Your task to perform on an android device: Is it going to rain this weekend? Image 0: 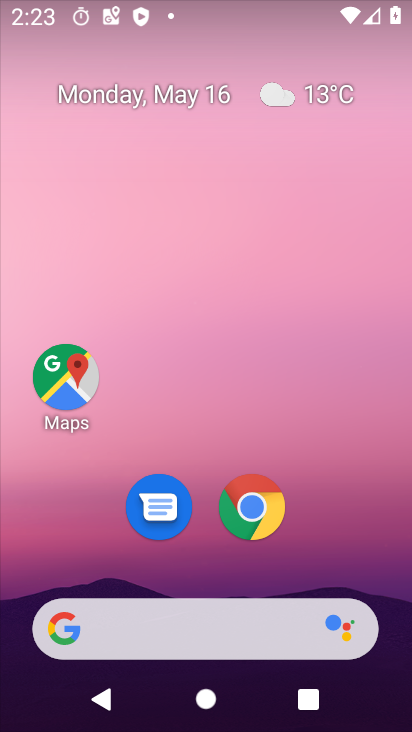
Step 0: click (225, 634)
Your task to perform on an android device: Is it going to rain this weekend? Image 1: 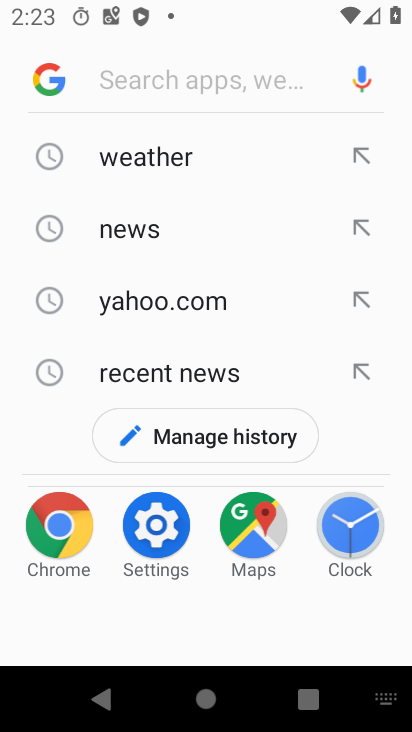
Step 1: click (175, 164)
Your task to perform on an android device: Is it going to rain this weekend? Image 2: 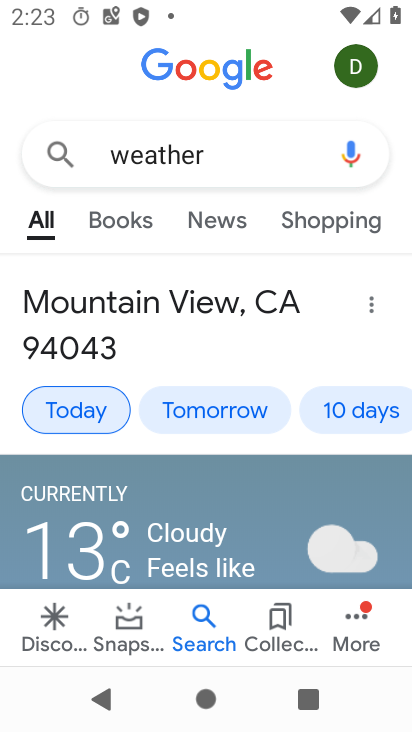
Step 2: click (337, 405)
Your task to perform on an android device: Is it going to rain this weekend? Image 3: 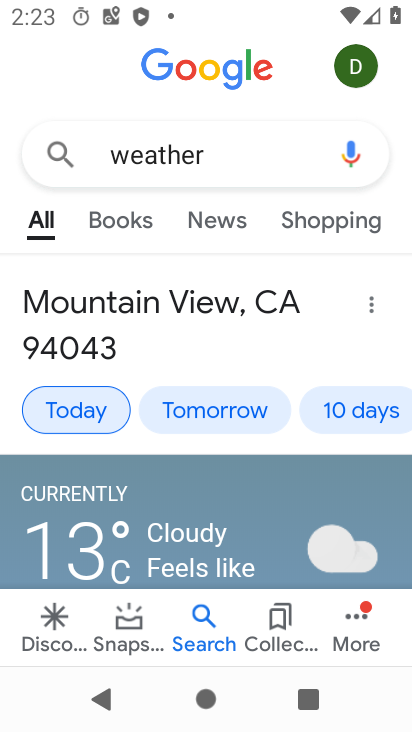
Step 3: click (337, 405)
Your task to perform on an android device: Is it going to rain this weekend? Image 4: 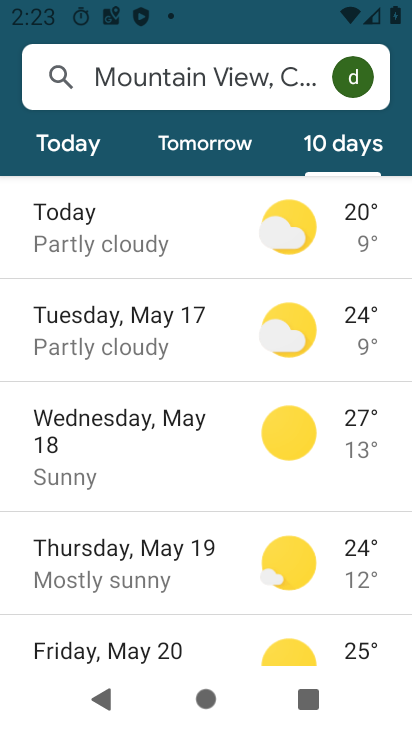
Step 4: task complete